Your task to perform on an android device: Go to location settings Image 0: 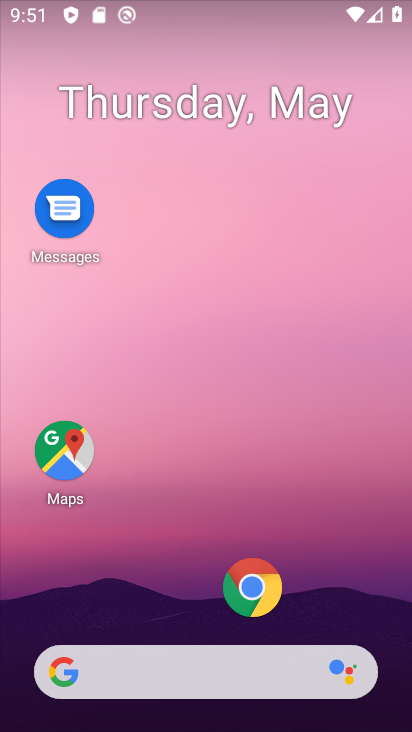
Step 0: drag from (237, 644) to (65, 336)
Your task to perform on an android device: Go to location settings Image 1: 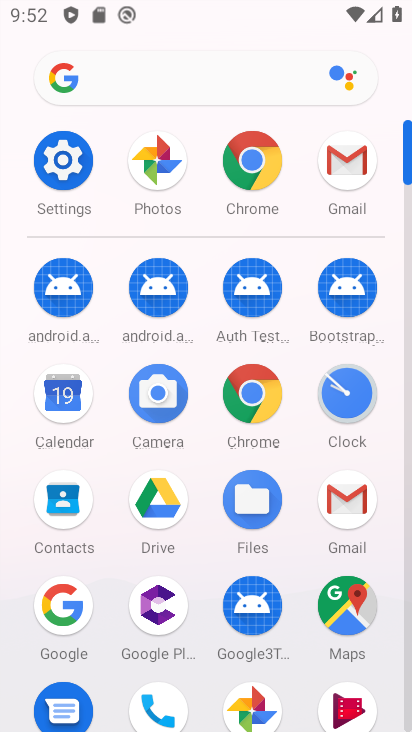
Step 1: click (52, 167)
Your task to perform on an android device: Go to location settings Image 2: 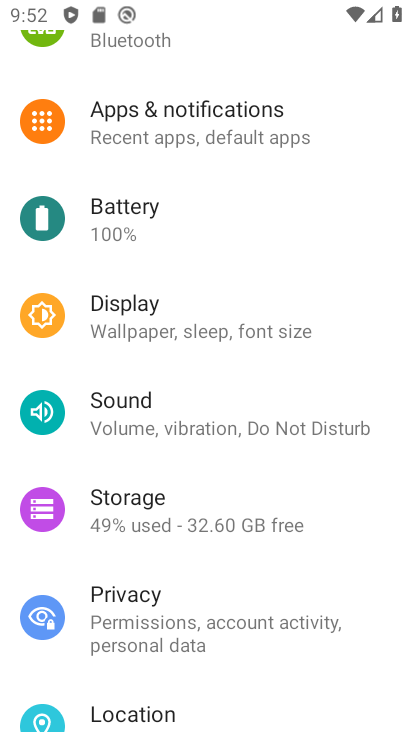
Step 2: click (170, 713)
Your task to perform on an android device: Go to location settings Image 3: 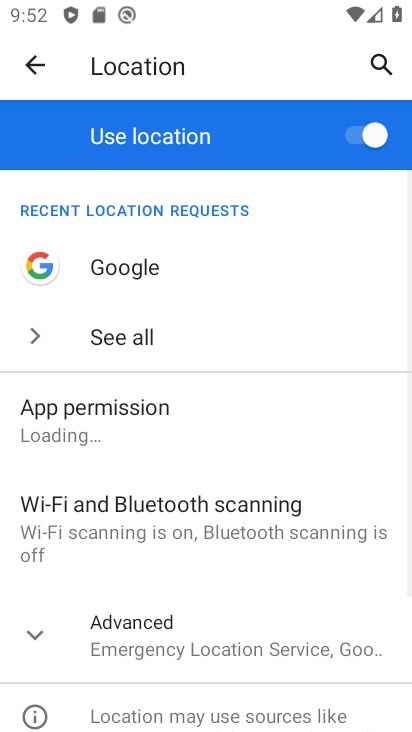
Step 3: click (171, 626)
Your task to perform on an android device: Go to location settings Image 4: 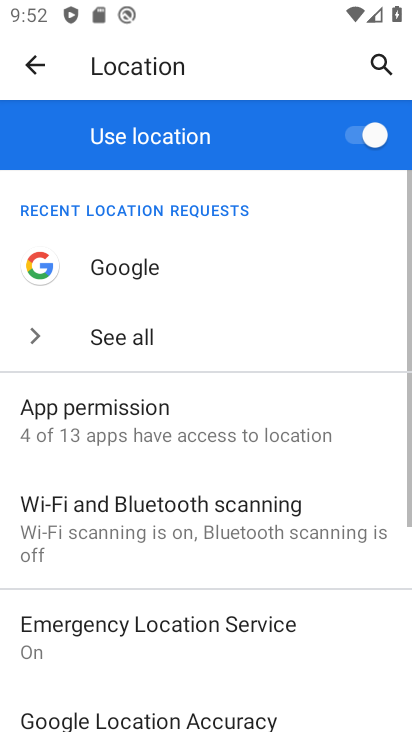
Step 4: task complete